Your task to perform on an android device: change alarm snooze length Image 0: 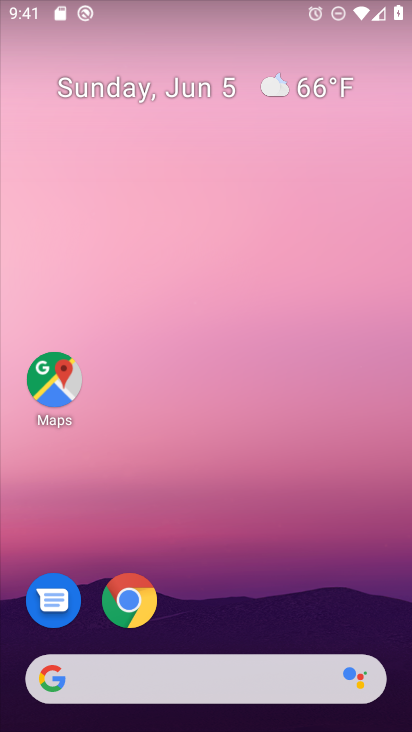
Step 0: drag from (327, 585) to (280, 118)
Your task to perform on an android device: change alarm snooze length Image 1: 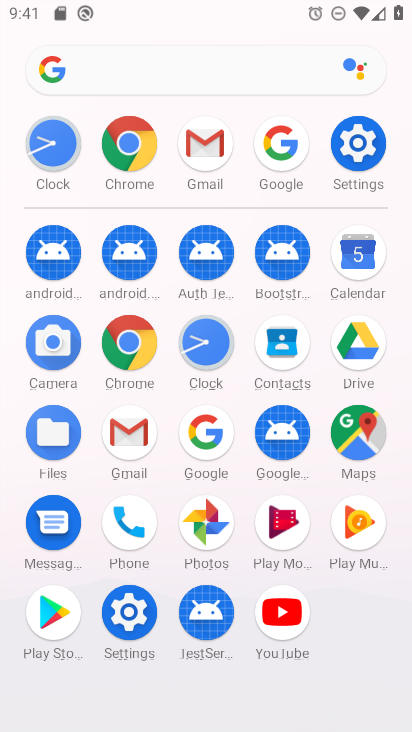
Step 1: click (216, 345)
Your task to perform on an android device: change alarm snooze length Image 2: 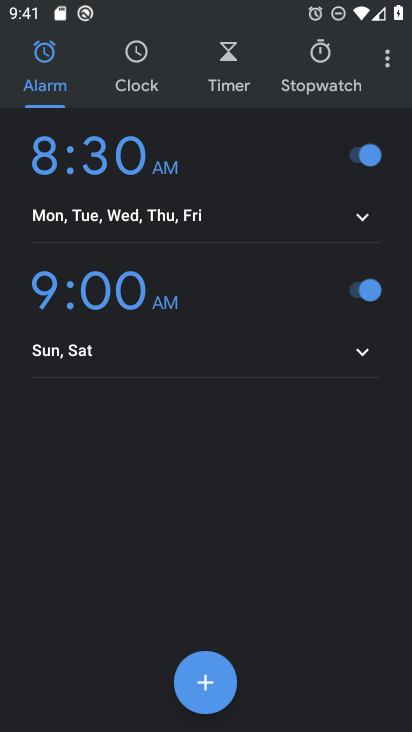
Step 2: click (382, 62)
Your task to perform on an android device: change alarm snooze length Image 3: 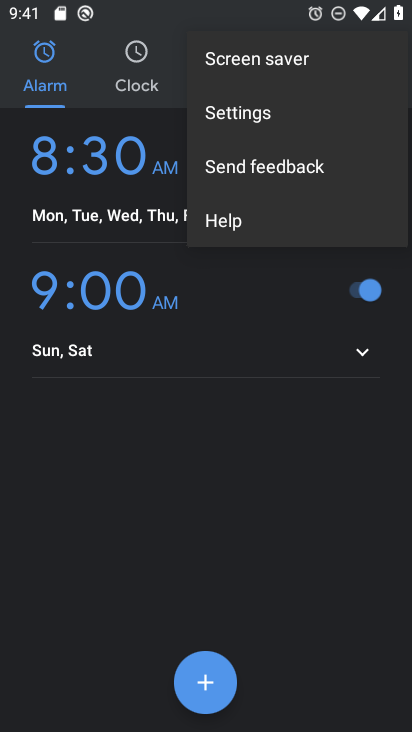
Step 3: click (287, 93)
Your task to perform on an android device: change alarm snooze length Image 4: 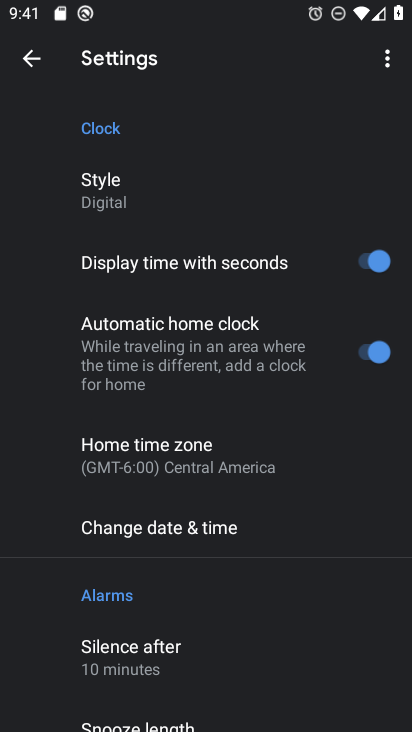
Step 4: click (207, 272)
Your task to perform on an android device: change alarm snooze length Image 5: 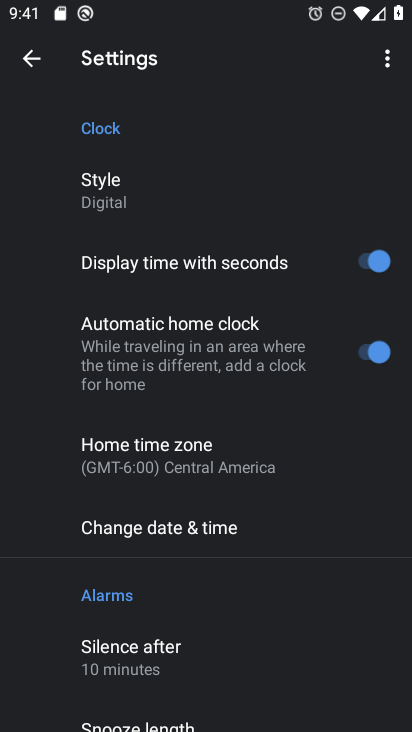
Step 5: drag from (203, 595) to (156, 186)
Your task to perform on an android device: change alarm snooze length Image 6: 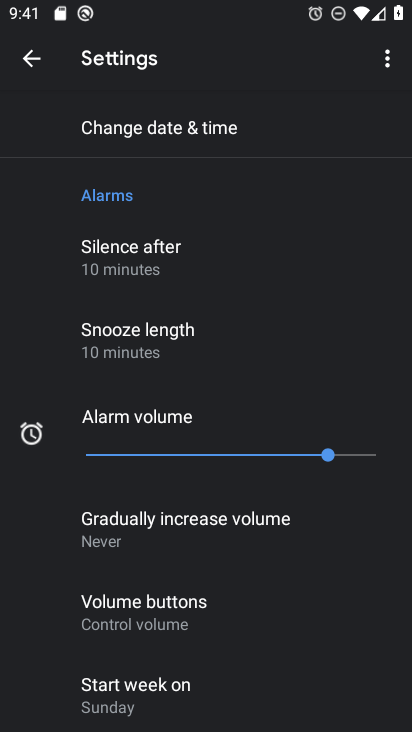
Step 6: drag from (172, 619) to (198, 222)
Your task to perform on an android device: change alarm snooze length Image 7: 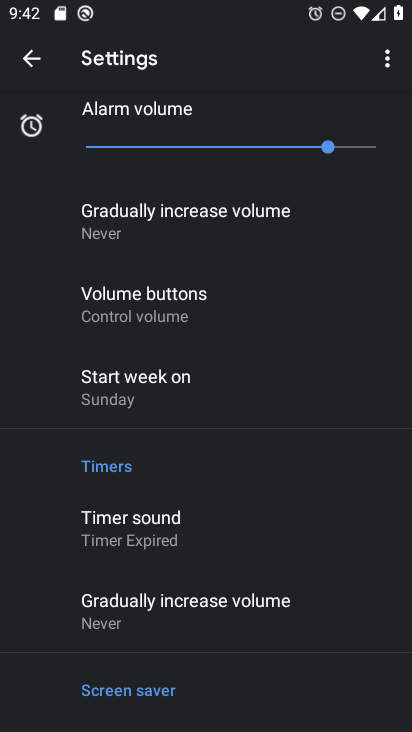
Step 7: drag from (190, 230) to (205, 567)
Your task to perform on an android device: change alarm snooze length Image 8: 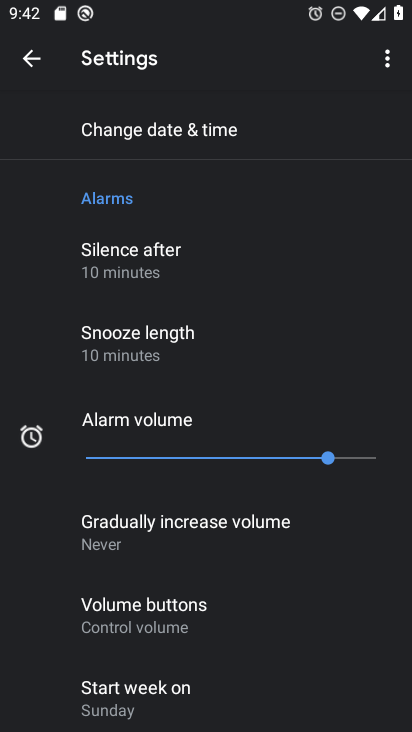
Step 8: click (173, 354)
Your task to perform on an android device: change alarm snooze length Image 9: 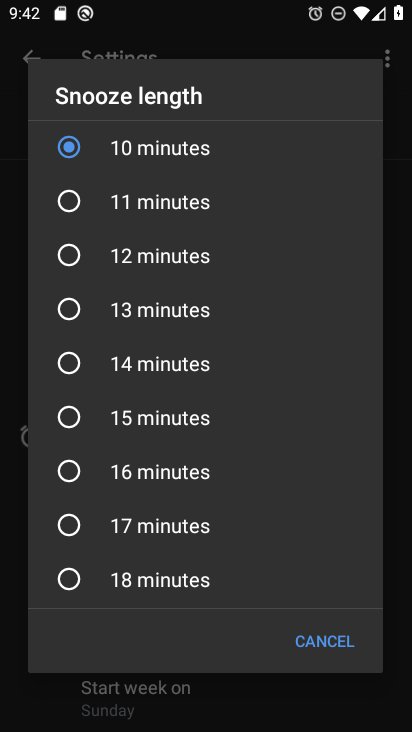
Step 9: click (63, 431)
Your task to perform on an android device: change alarm snooze length Image 10: 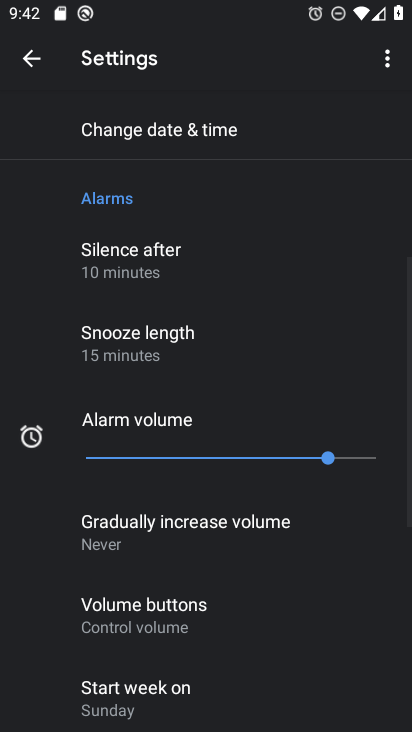
Step 10: task complete